Your task to perform on an android device: Turn off the flashlight Image 0: 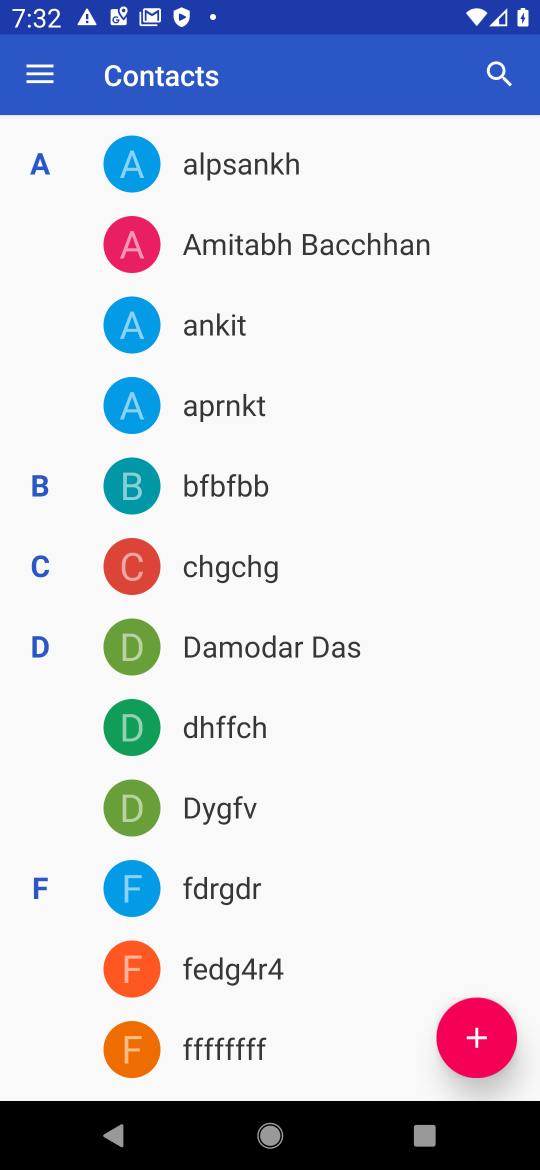
Step 0: press home button
Your task to perform on an android device: Turn off the flashlight Image 1: 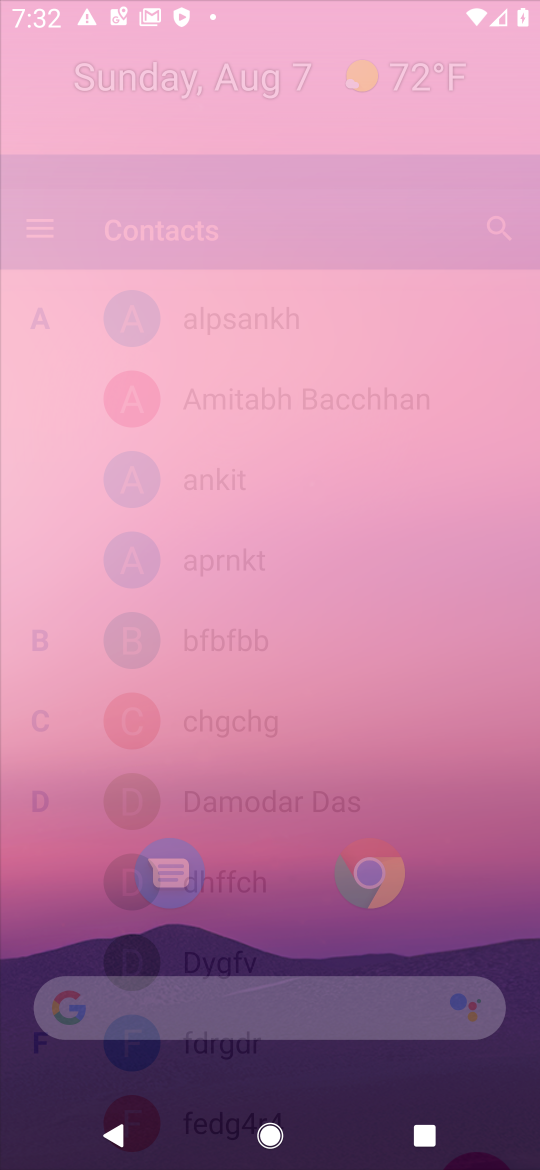
Step 1: drag from (407, 1049) to (282, 80)
Your task to perform on an android device: Turn off the flashlight Image 2: 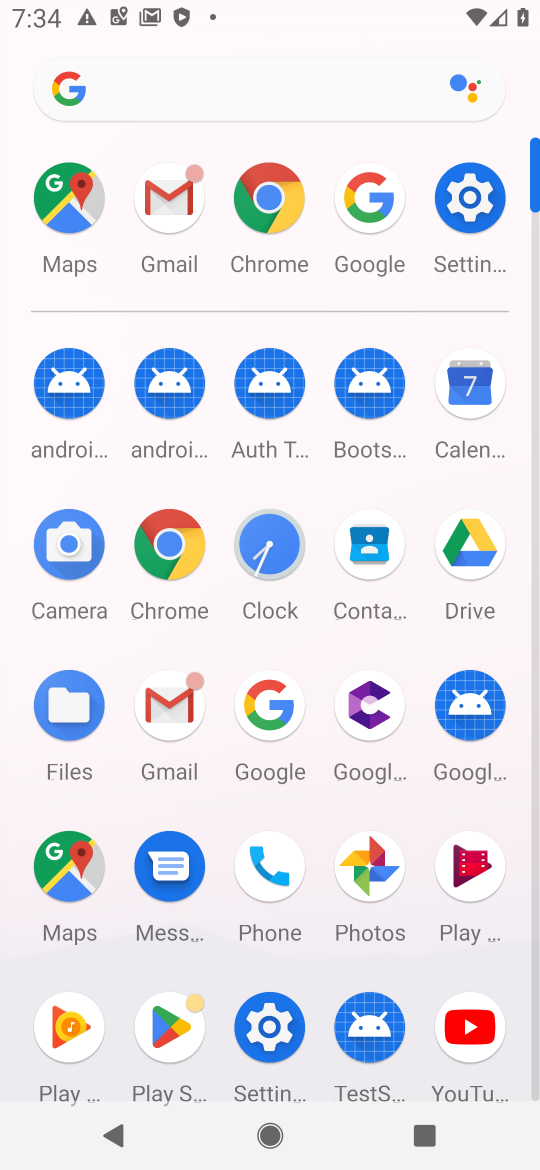
Step 2: click (227, 1023)
Your task to perform on an android device: Turn off the flashlight Image 3: 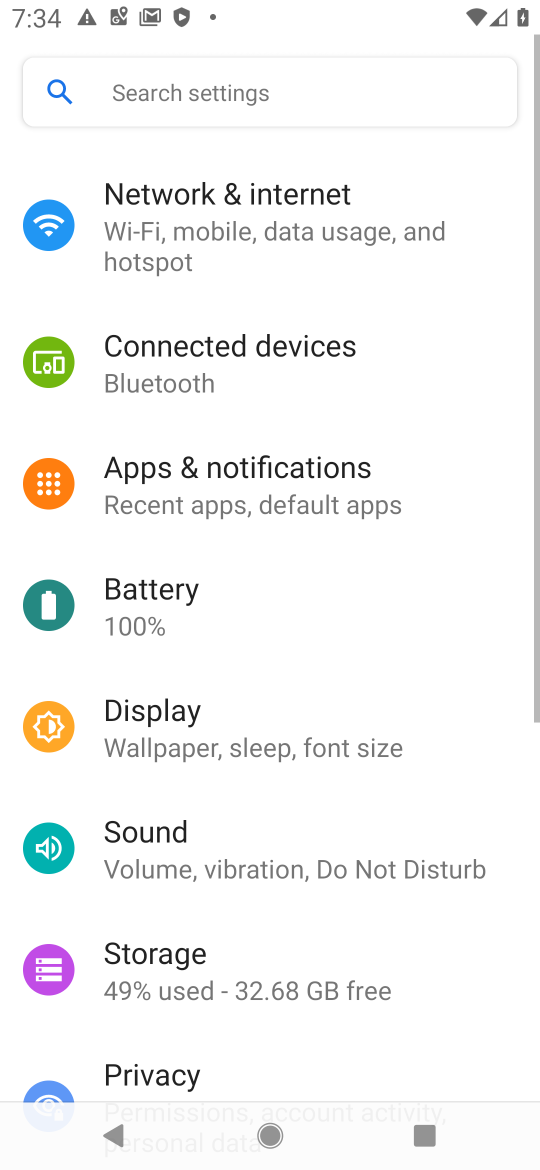
Step 3: task complete